Your task to perform on an android device: empty trash in the gmail app Image 0: 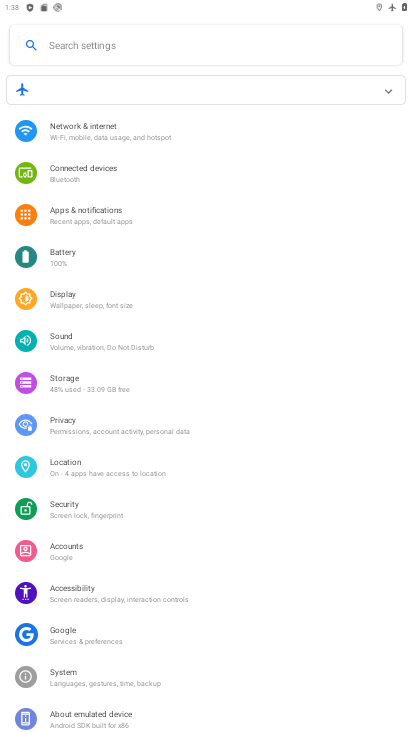
Step 0: press home button
Your task to perform on an android device: empty trash in the gmail app Image 1: 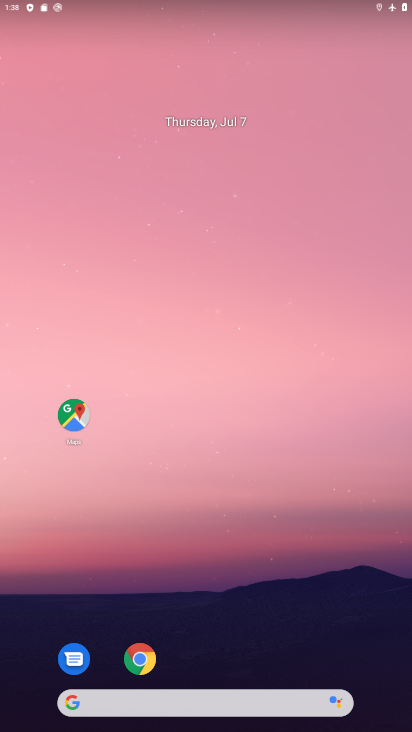
Step 1: drag from (250, 625) to (288, 158)
Your task to perform on an android device: empty trash in the gmail app Image 2: 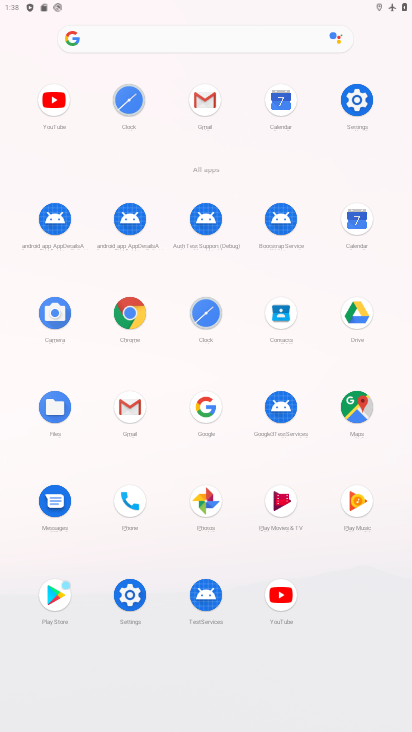
Step 2: click (203, 108)
Your task to perform on an android device: empty trash in the gmail app Image 3: 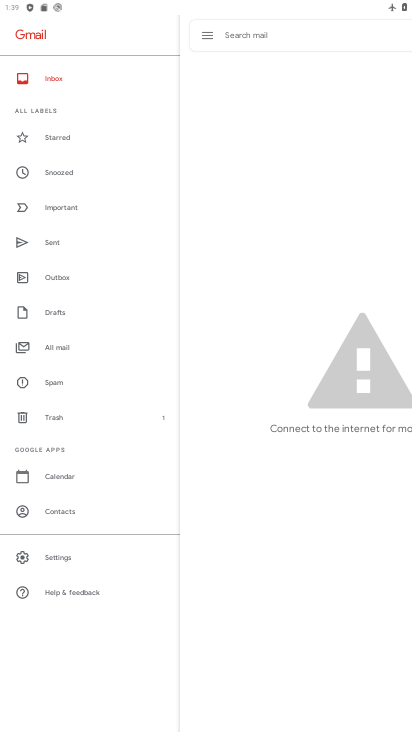
Step 3: click (43, 429)
Your task to perform on an android device: empty trash in the gmail app Image 4: 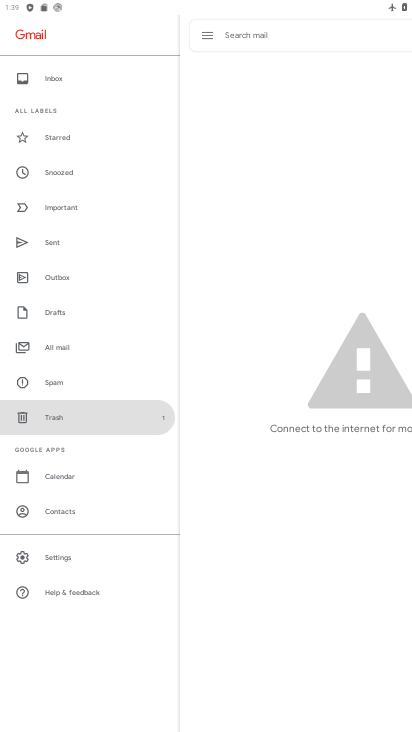
Step 4: task complete